Your task to perform on an android device: Go to Android settings Image 0: 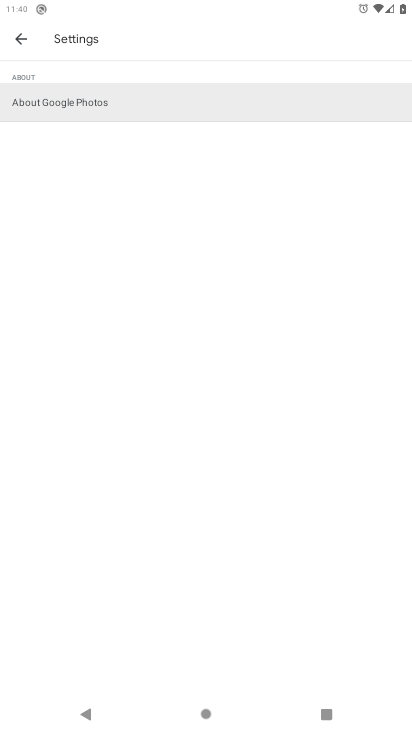
Step 0: press home button
Your task to perform on an android device: Go to Android settings Image 1: 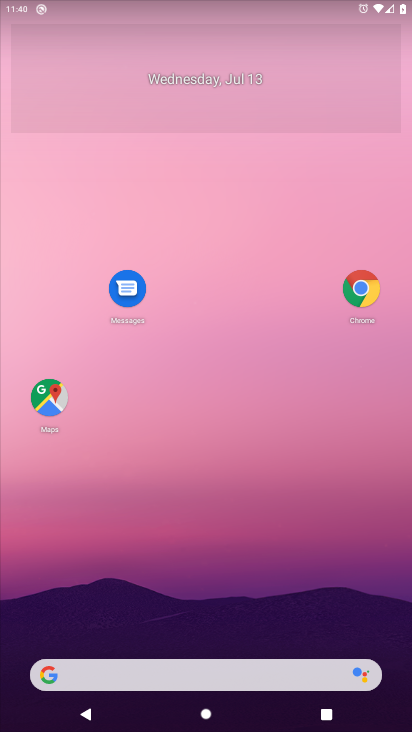
Step 1: drag from (44, 668) to (198, 182)
Your task to perform on an android device: Go to Android settings Image 2: 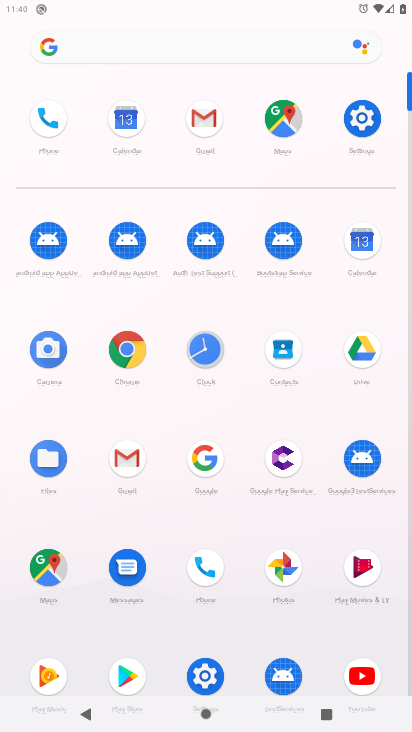
Step 2: click (202, 679)
Your task to perform on an android device: Go to Android settings Image 3: 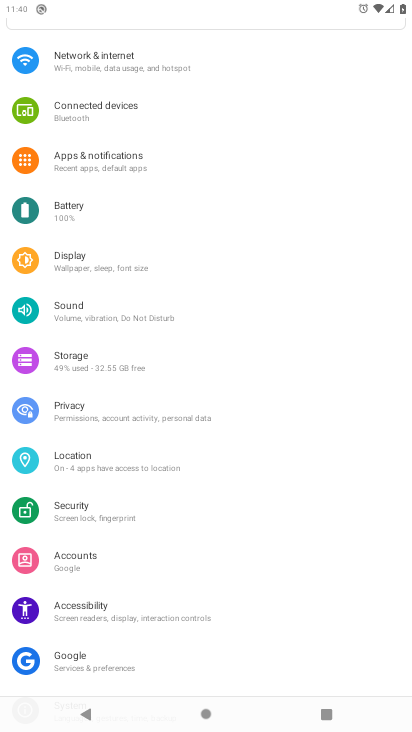
Step 3: drag from (217, 635) to (279, 302)
Your task to perform on an android device: Go to Android settings Image 4: 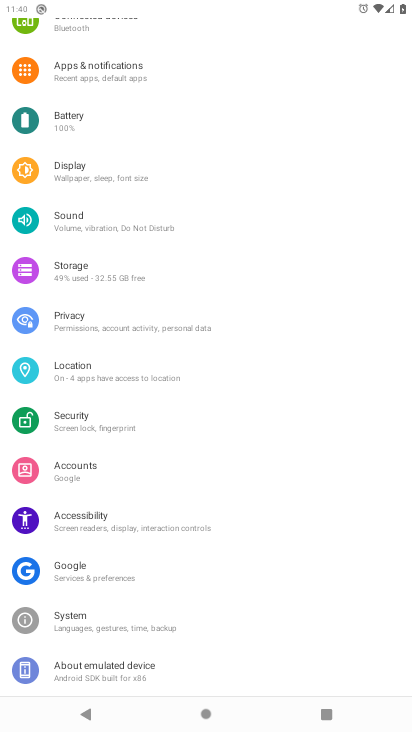
Step 4: click (112, 667)
Your task to perform on an android device: Go to Android settings Image 5: 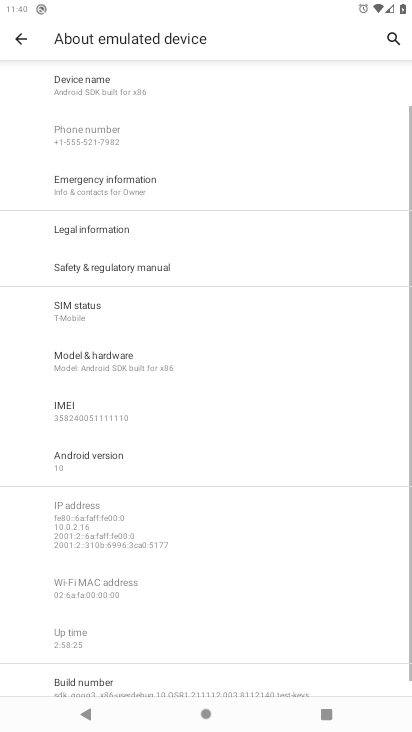
Step 5: click (102, 475)
Your task to perform on an android device: Go to Android settings Image 6: 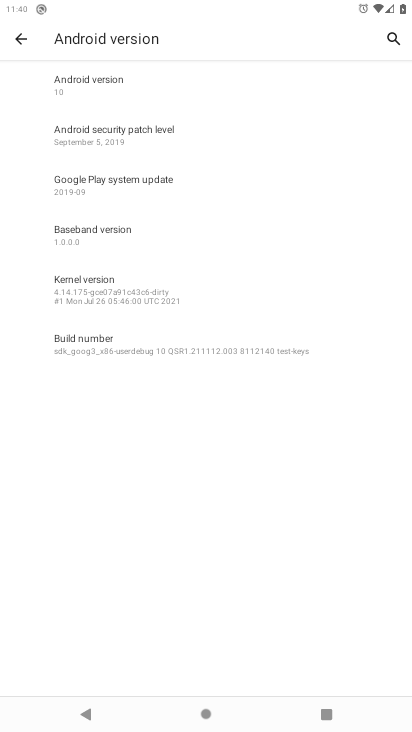
Step 6: task complete